Your task to perform on an android device: toggle show notifications on the lock screen Image 0: 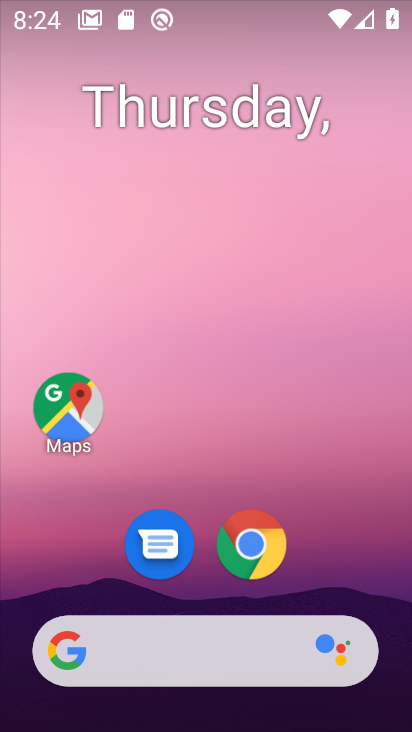
Step 0: drag from (327, 548) to (313, 33)
Your task to perform on an android device: toggle show notifications on the lock screen Image 1: 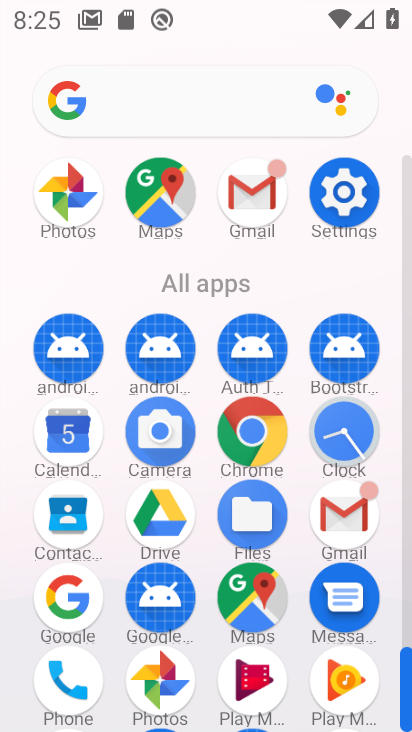
Step 1: drag from (6, 611) to (5, 292)
Your task to perform on an android device: toggle show notifications on the lock screen Image 2: 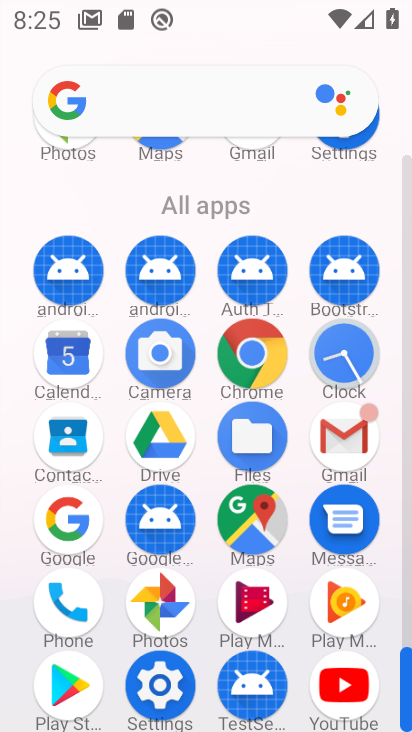
Step 2: click (159, 681)
Your task to perform on an android device: toggle show notifications on the lock screen Image 3: 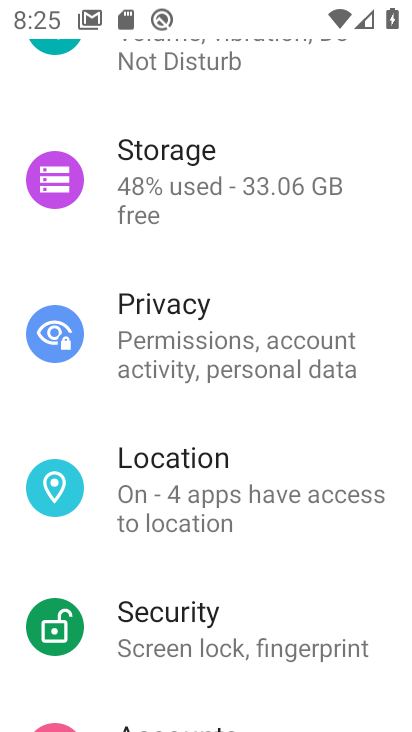
Step 3: drag from (256, 149) to (276, 577)
Your task to perform on an android device: toggle show notifications on the lock screen Image 4: 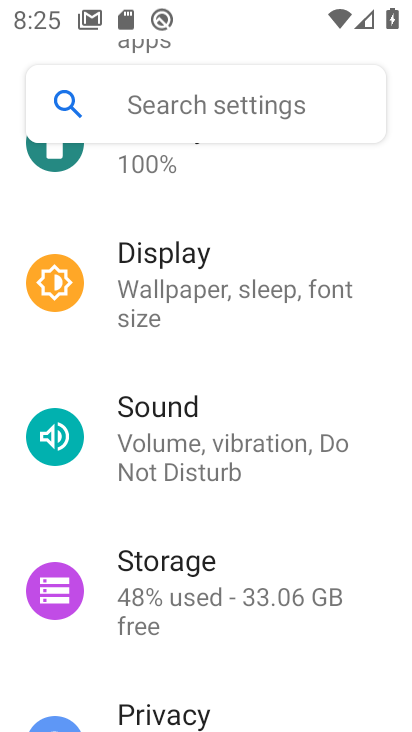
Step 4: drag from (282, 321) to (286, 629)
Your task to perform on an android device: toggle show notifications on the lock screen Image 5: 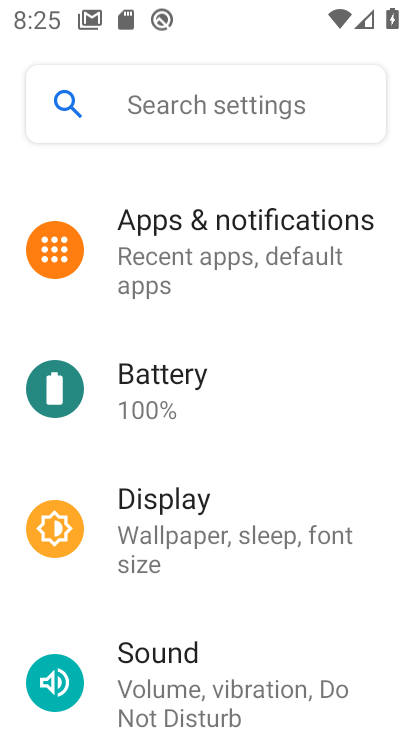
Step 5: click (227, 245)
Your task to perform on an android device: toggle show notifications on the lock screen Image 6: 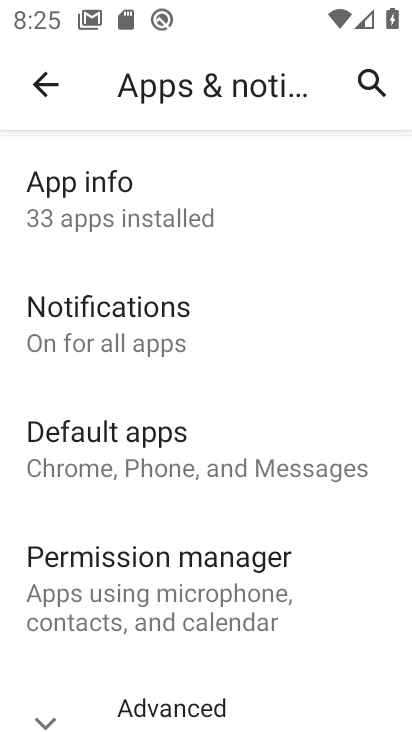
Step 6: click (49, 705)
Your task to perform on an android device: toggle show notifications on the lock screen Image 7: 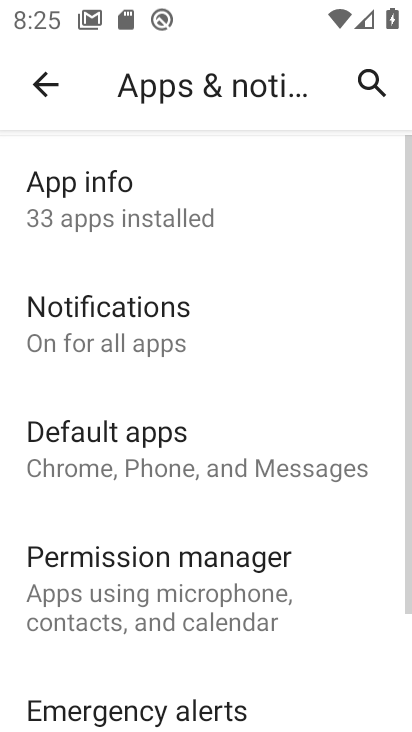
Step 7: drag from (291, 656) to (334, 656)
Your task to perform on an android device: toggle show notifications on the lock screen Image 8: 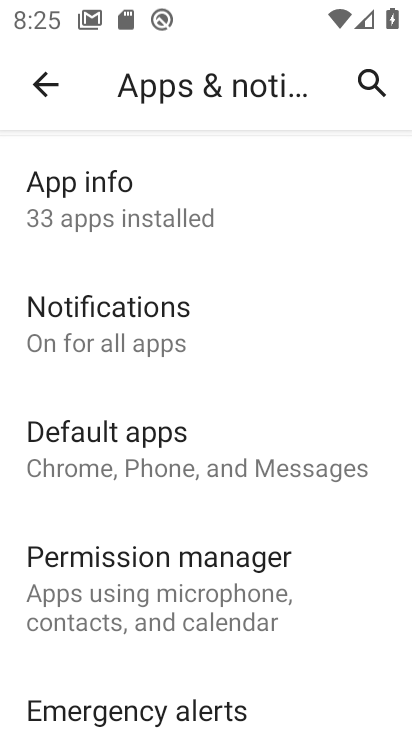
Step 8: click (155, 301)
Your task to perform on an android device: toggle show notifications on the lock screen Image 9: 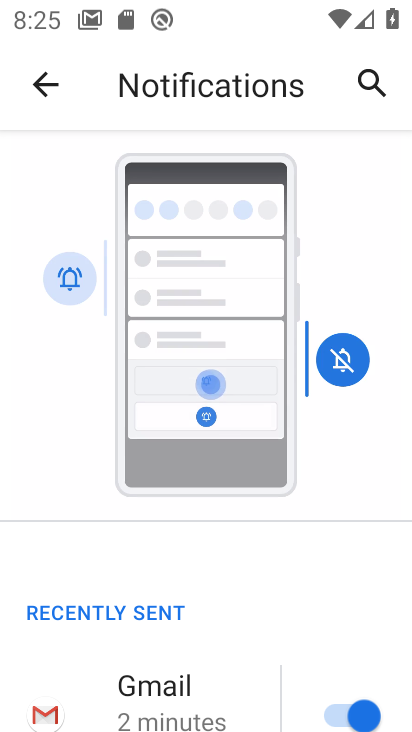
Step 9: drag from (246, 629) to (260, 182)
Your task to perform on an android device: toggle show notifications on the lock screen Image 10: 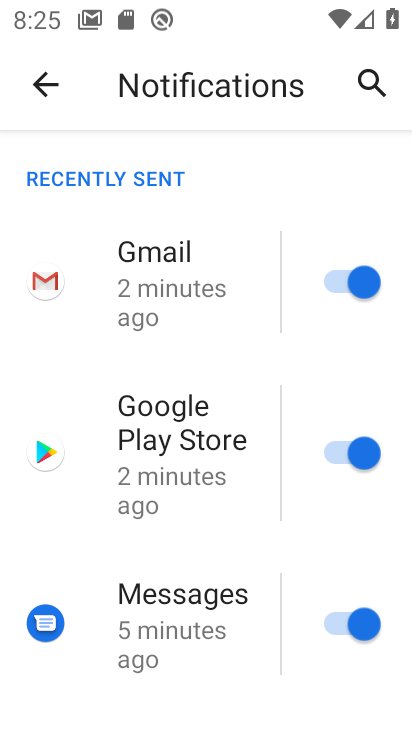
Step 10: drag from (231, 568) to (239, 160)
Your task to perform on an android device: toggle show notifications on the lock screen Image 11: 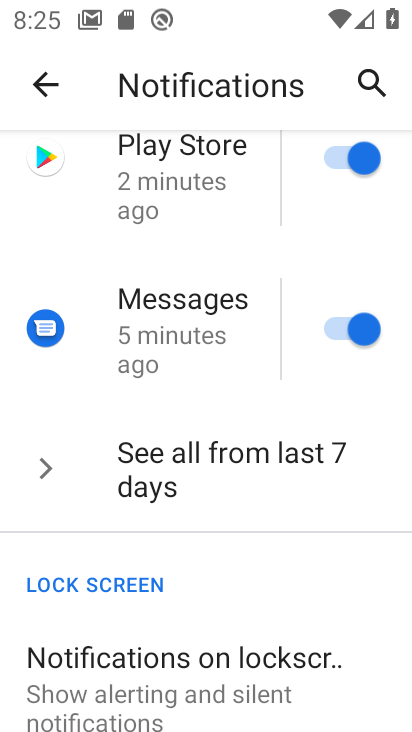
Step 11: click (227, 663)
Your task to perform on an android device: toggle show notifications on the lock screen Image 12: 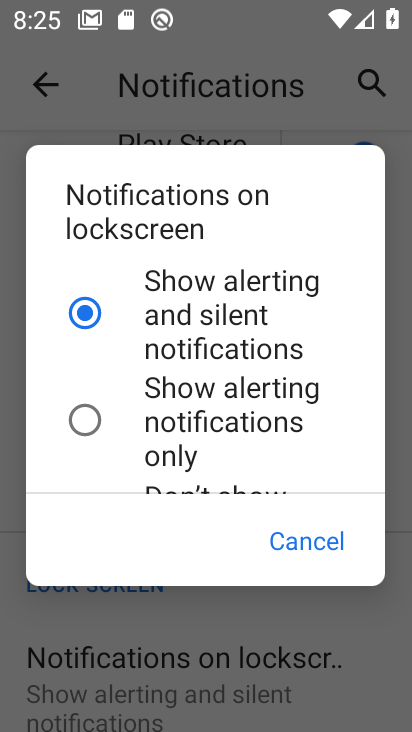
Step 12: click (120, 409)
Your task to perform on an android device: toggle show notifications on the lock screen Image 13: 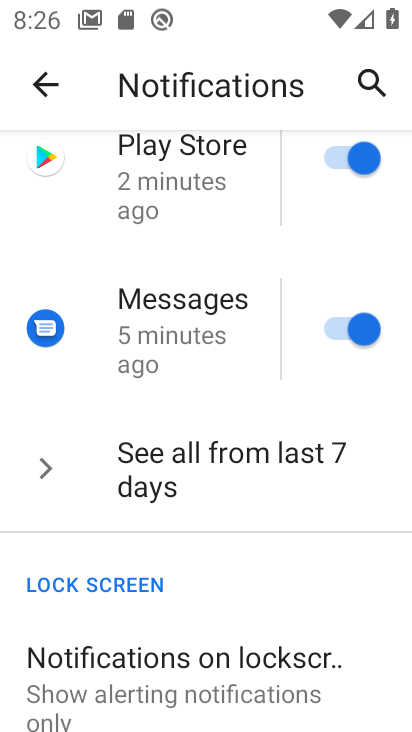
Step 13: task complete